Your task to perform on an android device: Open Google Maps Image 0: 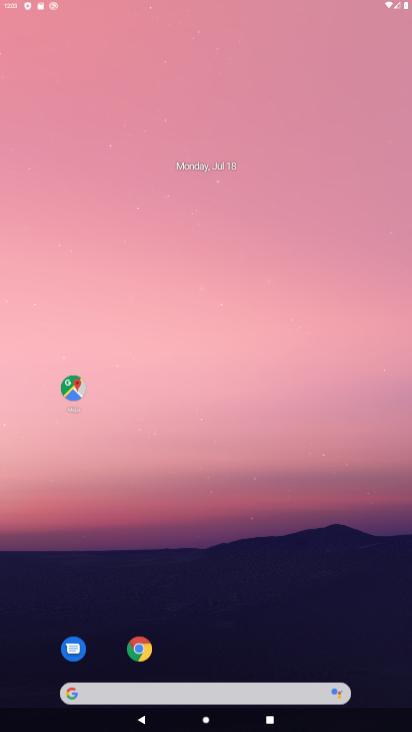
Step 0: drag from (196, 370) to (201, 335)
Your task to perform on an android device: Open Google Maps Image 1: 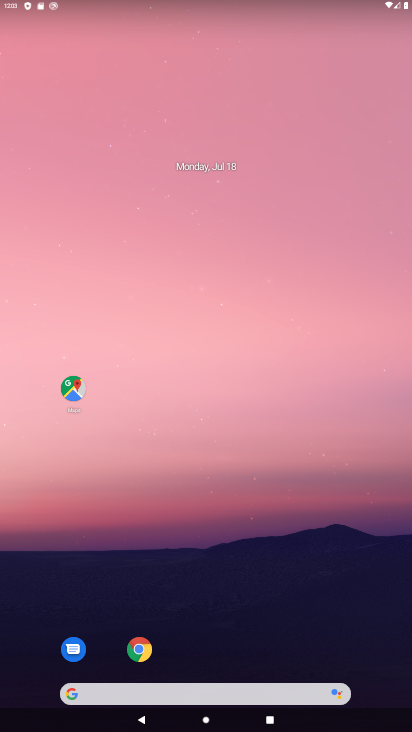
Step 1: drag from (216, 665) to (253, 182)
Your task to perform on an android device: Open Google Maps Image 2: 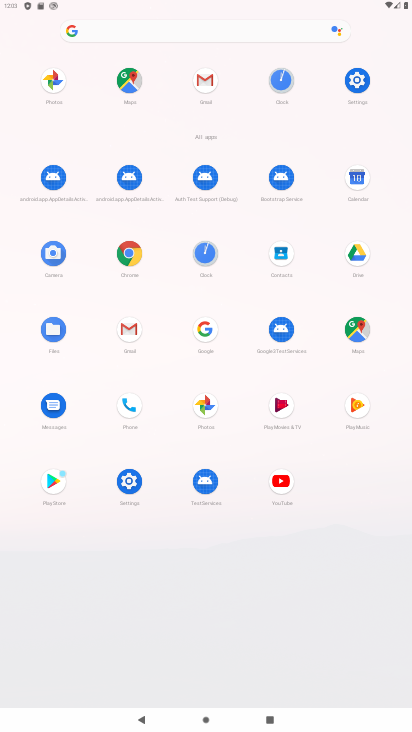
Step 2: click (359, 326)
Your task to perform on an android device: Open Google Maps Image 3: 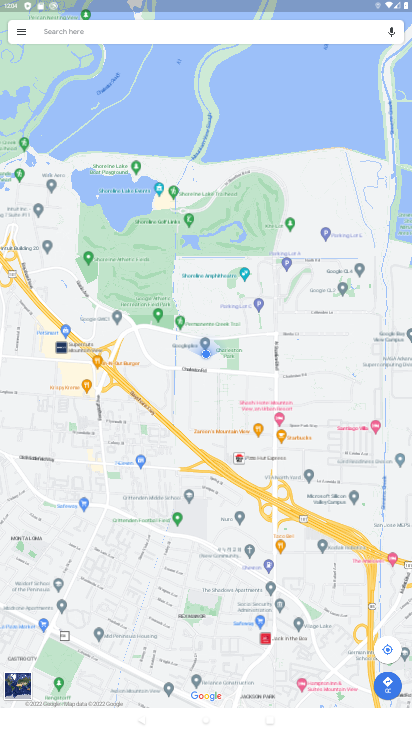
Step 3: task complete